Your task to perform on an android device: open the mobile data screen to see how much data has been used Image 0: 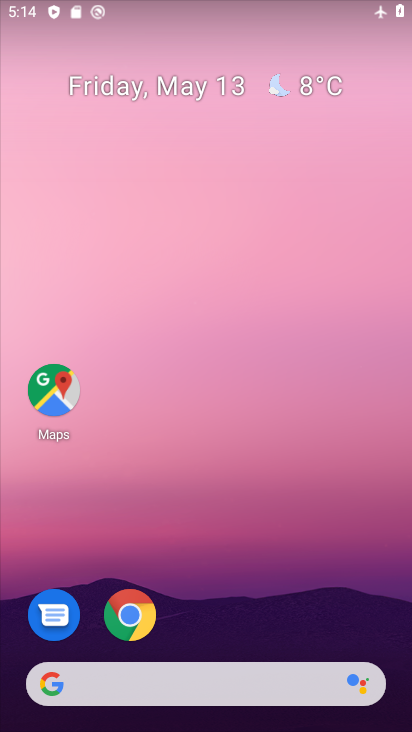
Step 0: drag from (263, 524) to (221, 0)
Your task to perform on an android device: open the mobile data screen to see how much data has been used Image 1: 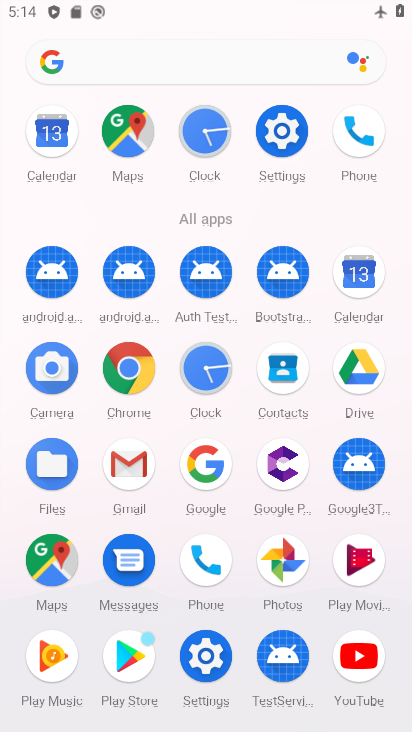
Step 1: drag from (14, 546) to (0, 231)
Your task to perform on an android device: open the mobile data screen to see how much data has been used Image 2: 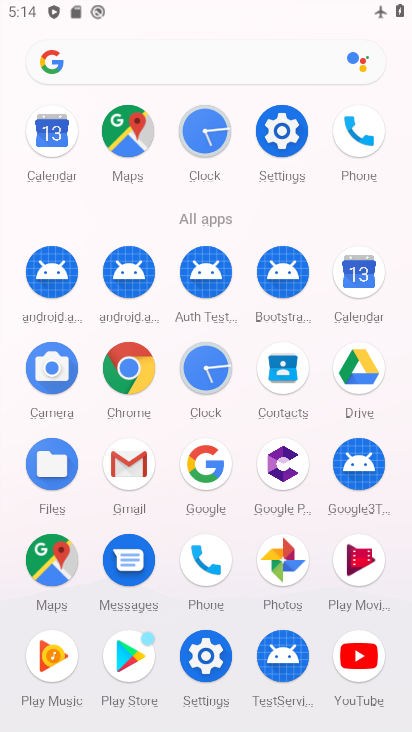
Step 2: click (207, 651)
Your task to perform on an android device: open the mobile data screen to see how much data has been used Image 3: 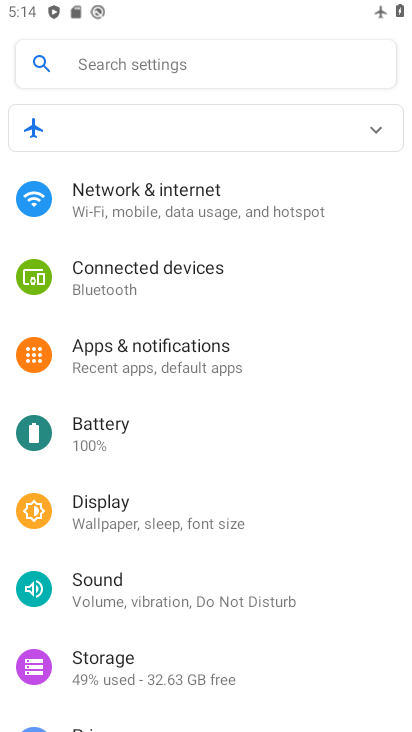
Step 3: click (201, 191)
Your task to perform on an android device: open the mobile data screen to see how much data has been used Image 4: 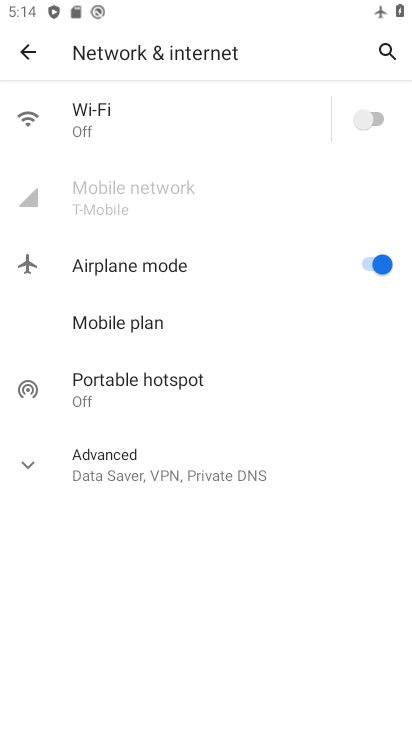
Step 4: task complete